Your task to perform on an android device: Go to internet settings Image 0: 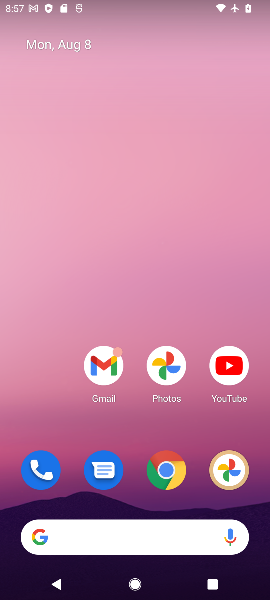
Step 0: drag from (141, 525) to (114, 219)
Your task to perform on an android device: Go to internet settings Image 1: 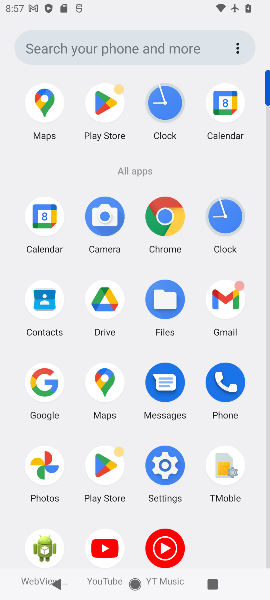
Step 1: click (163, 468)
Your task to perform on an android device: Go to internet settings Image 2: 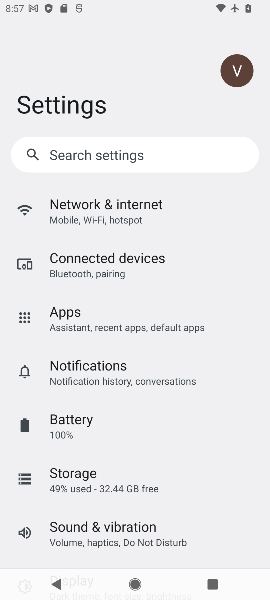
Step 2: drag from (102, 528) to (101, 199)
Your task to perform on an android device: Go to internet settings Image 3: 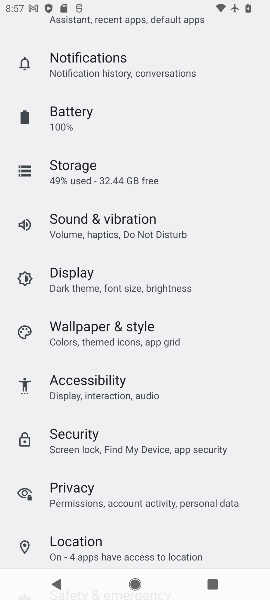
Step 3: drag from (120, 68) to (129, 385)
Your task to perform on an android device: Go to internet settings Image 4: 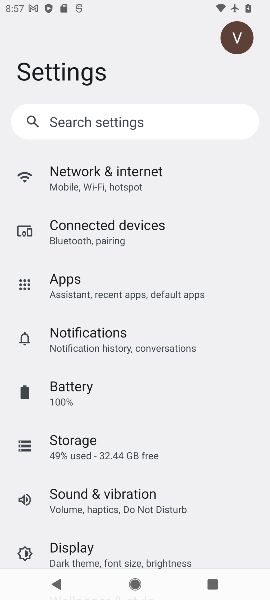
Step 4: click (75, 176)
Your task to perform on an android device: Go to internet settings Image 5: 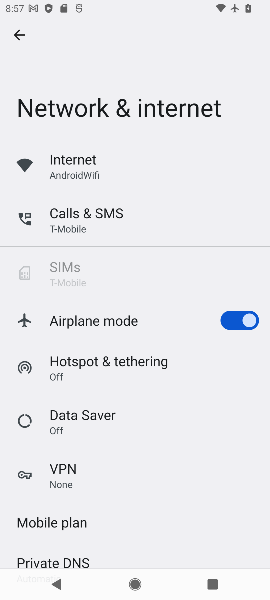
Step 5: task complete